Your task to perform on an android device: turn off javascript in the chrome app Image 0: 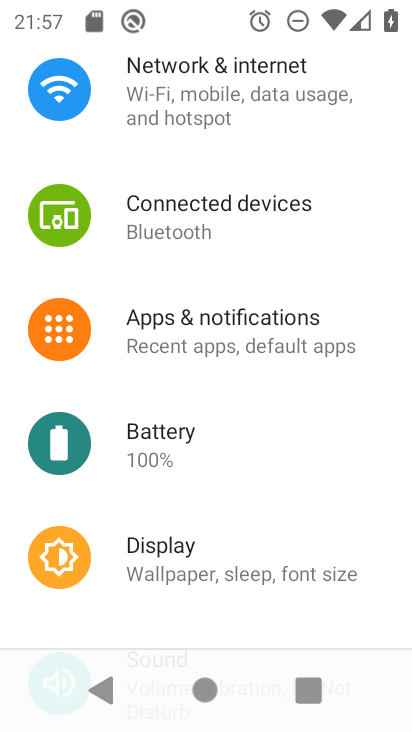
Step 0: press home button
Your task to perform on an android device: turn off javascript in the chrome app Image 1: 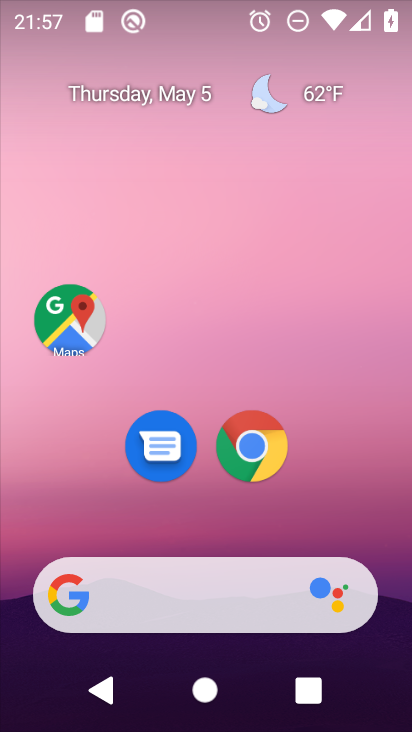
Step 1: drag from (205, 652) to (270, 217)
Your task to perform on an android device: turn off javascript in the chrome app Image 2: 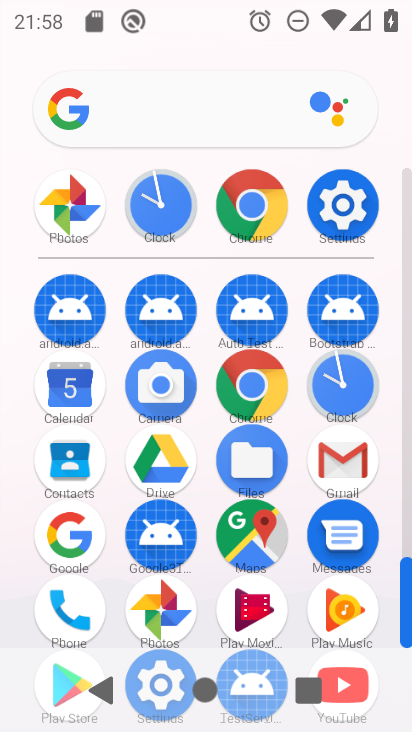
Step 2: click (264, 202)
Your task to perform on an android device: turn off javascript in the chrome app Image 3: 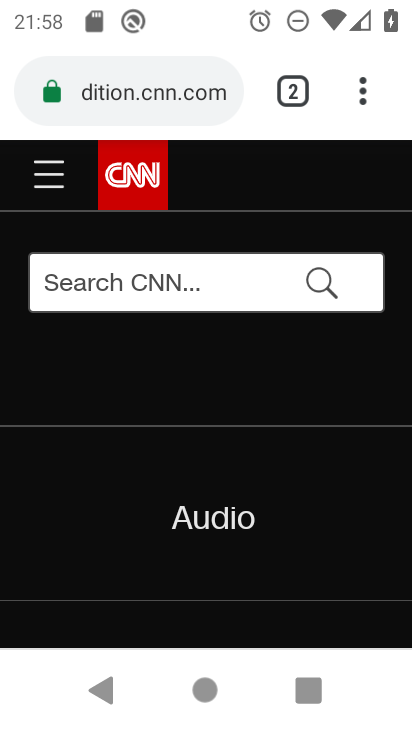
Step 3: click (372, 100)
Your task to perform on an android device: turn off javascript in the chrome app Image 4: 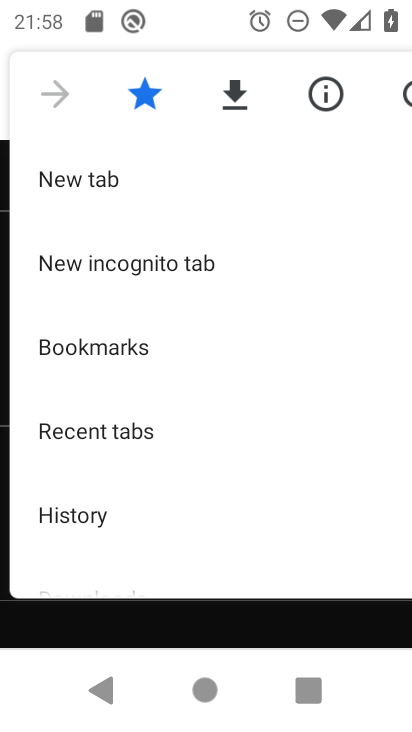
Step 4: drag from (109, 481) to (258, 103)
Your task to perform on an android device: turn off javascript in the chrome app Image 5: 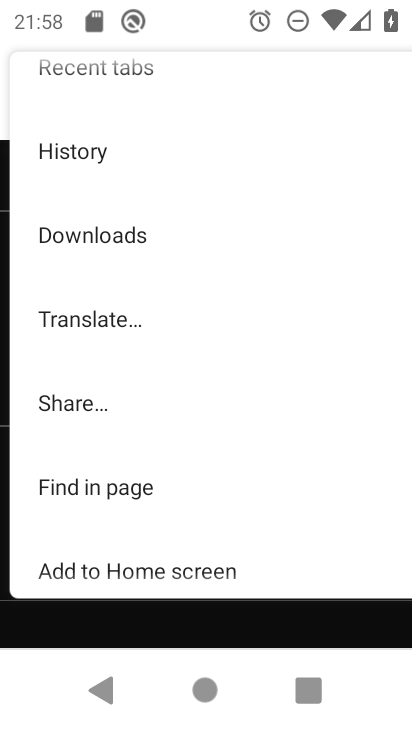
Step 5: drag from (111, 459) to (273, 212)
Your task to perform on an android device: turn off javascript in the chrome app Image 6: 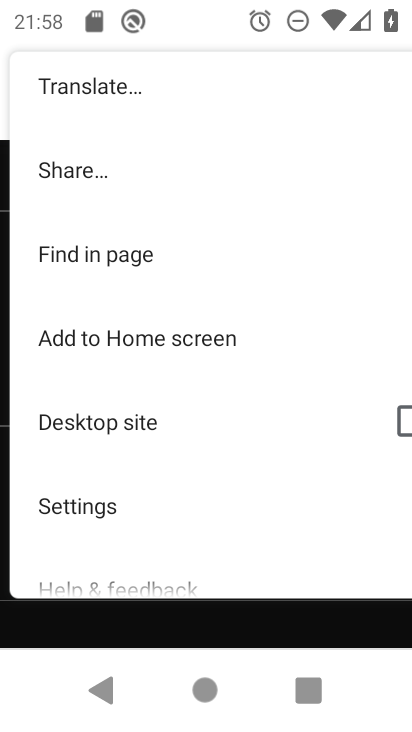
Step 6: click (90, 506)
Your task to perform on an android device: turn off javascript in the chrome app Image 7: 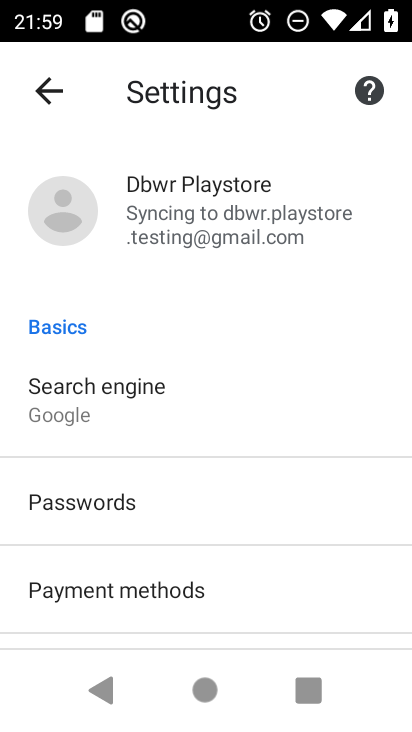
Step 7: drag from (93, 554) to (216, 224)
Your task to perform on an android device: turn off javascript in the chrome app Image 8: 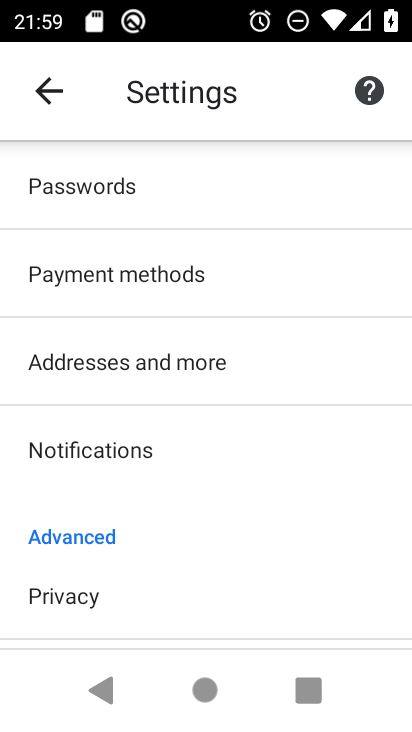
Step 8: drag from (112, 573) to (184, 397)
Your task to perform on an android device: turn off javascript in the chrome app Image 9: 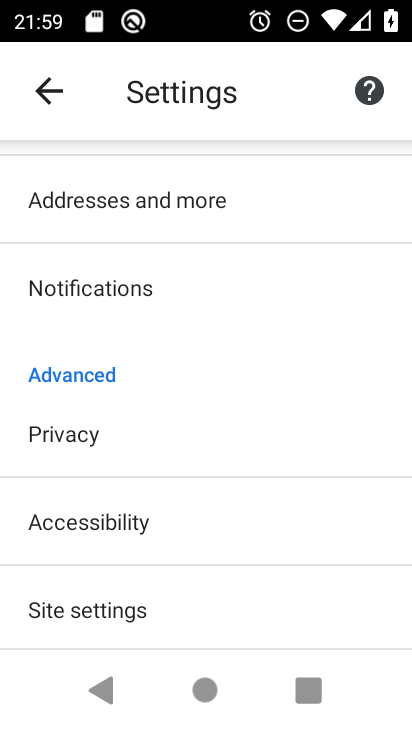
Step 9: click (108, 606)
Your task to perform on an android device: turn off javascript in the chrome app Image 10: 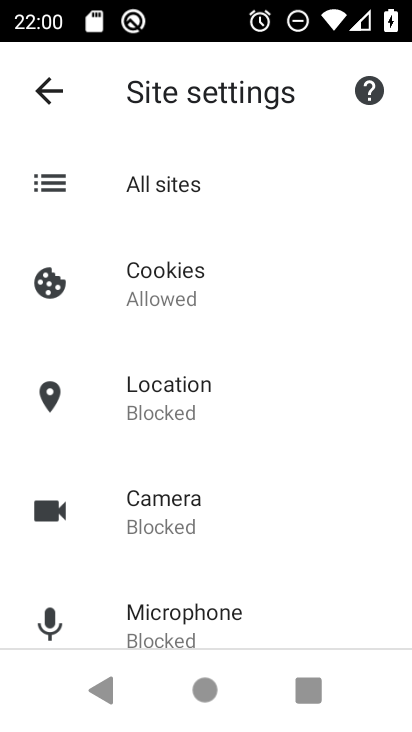
Step 10: drag from (216, 593) to (286, 313)
Your task to perform on an android device: turn off javascript in the chrome app Image 11: 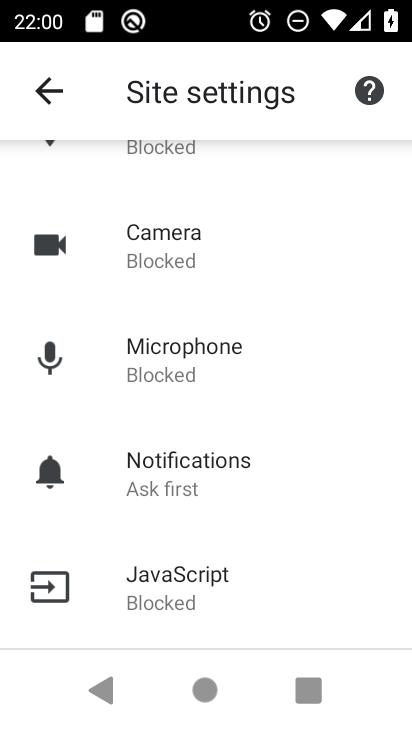
Step 11: click (167, 562)
Your task to perform on an android device: turn off javascript in the chrome app Image 12: 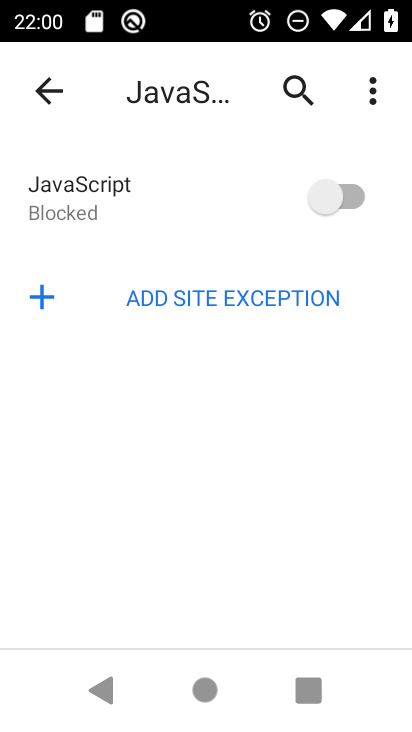
Step 12: click (308, 173)
Your task to perform on an android device: turn off javascript in the chrome app Image 13: 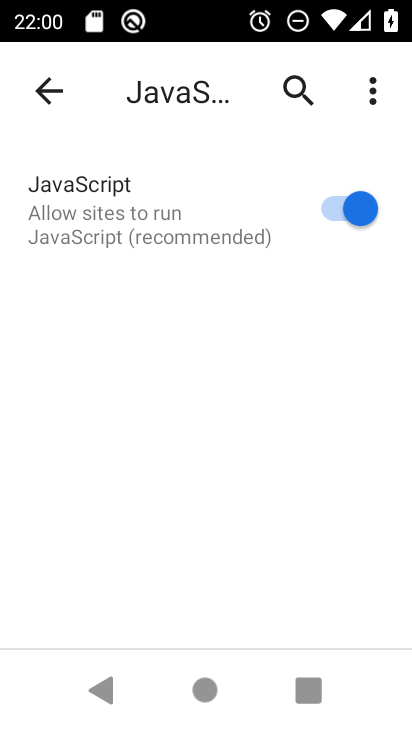
Step 13: click (312, 185)
Your task to perform on an android device: turn off javascript in the chrome app Image 14: 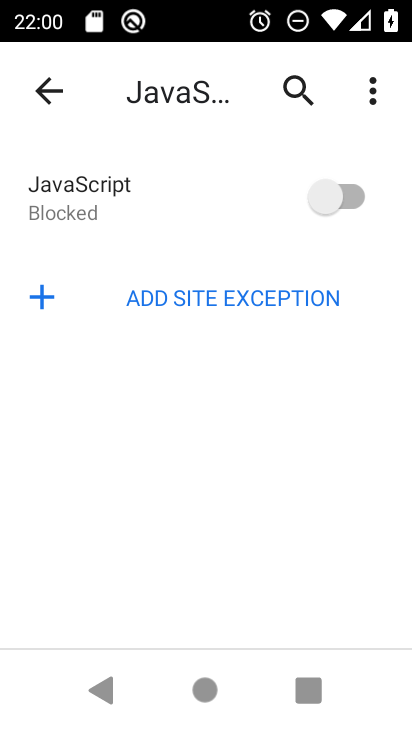
Step 14: task complete